Your task to perform on an android device: check storage Image 0: 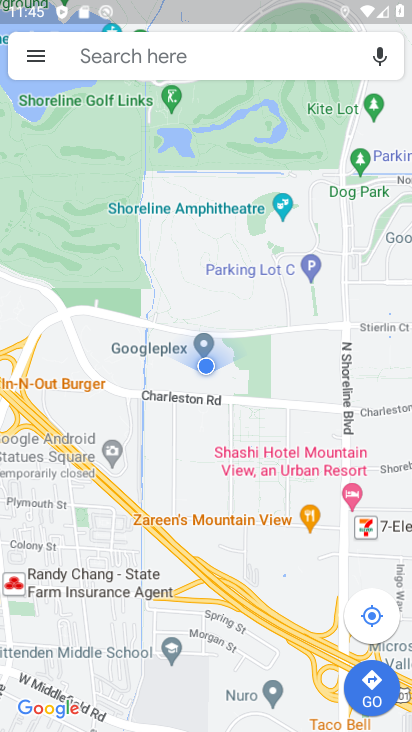
Step 0: press home button
Your task to perform on an android device: check storage Image 1: 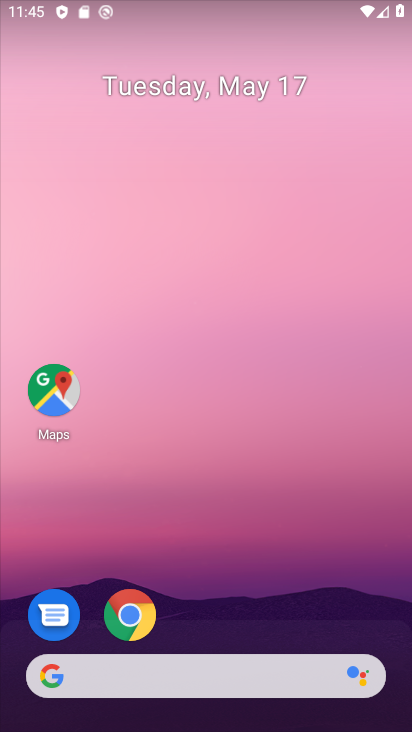
Step 1: drag from (224, 336) to (257, 103)
Your task to perform on an android device: check storage Image 2: 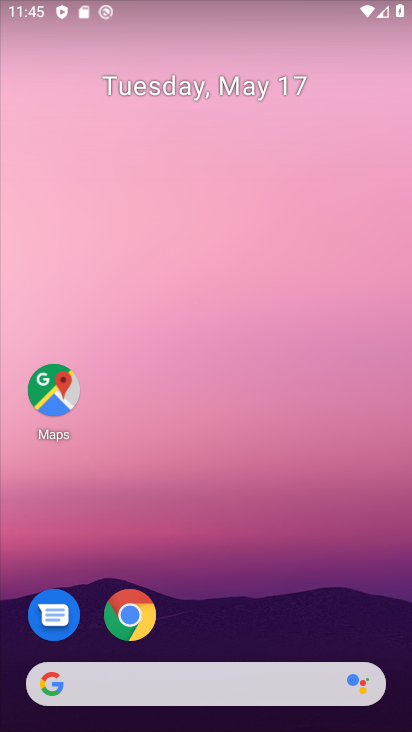
Step 2: drag from (208, 363) to (271, 20)
Your task to perform on an android device: check storage Image 3: 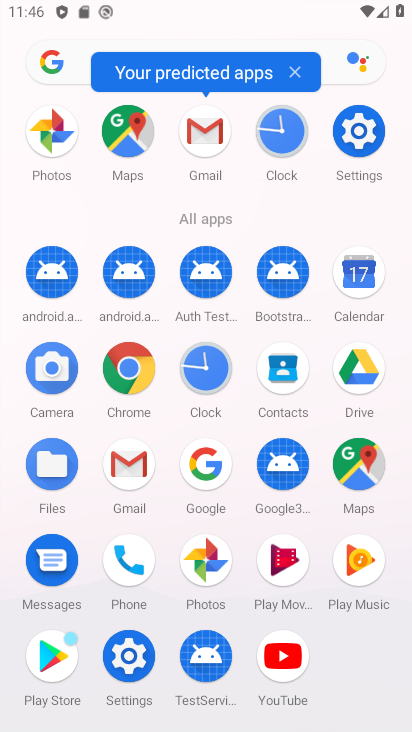
Step 3: click (132, 669)
Your task to perform on an android device: check storage Image 4: 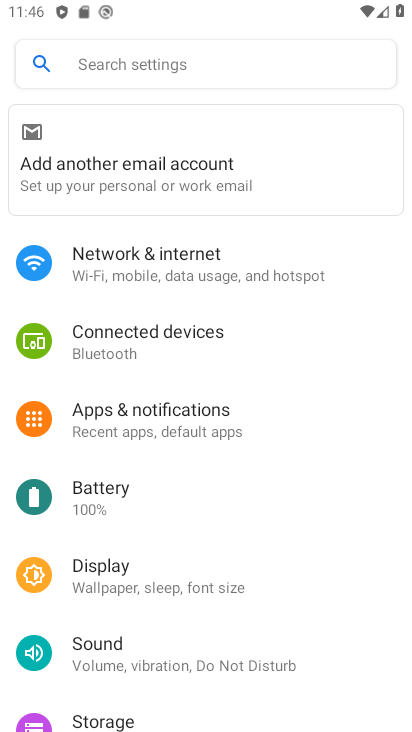
Step 4: drag from (169, 692) to (319, 355)
Your task to perform on an android device: check storage Image 5: 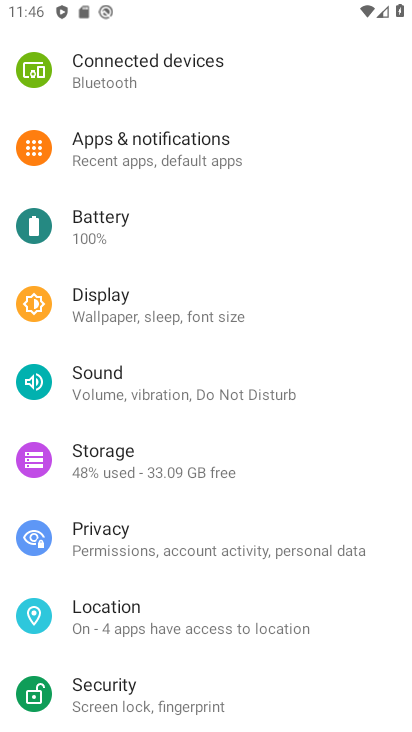
Step 5: click (173, 473)
Your task to perform on an android device: check storage Image 6: 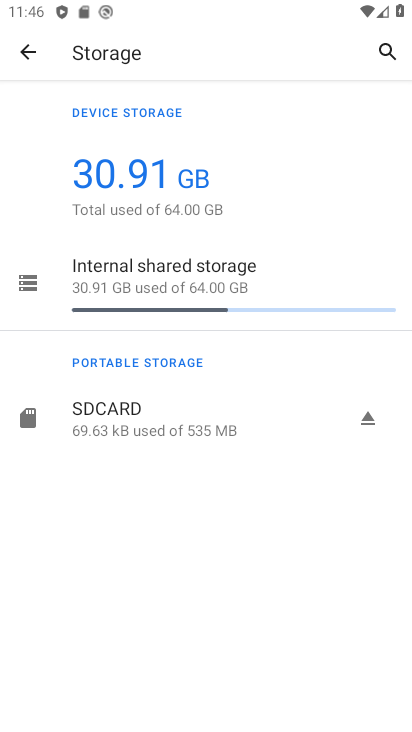
Step 6: task complete